Your task to perform on an android device: Open CNN.com Image 0: 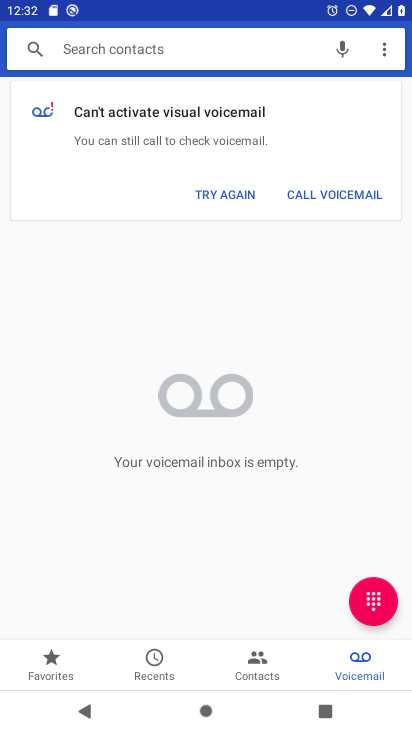
Step 0: press home button
Your task to perform on an android device: Open CNN.com Image 1: 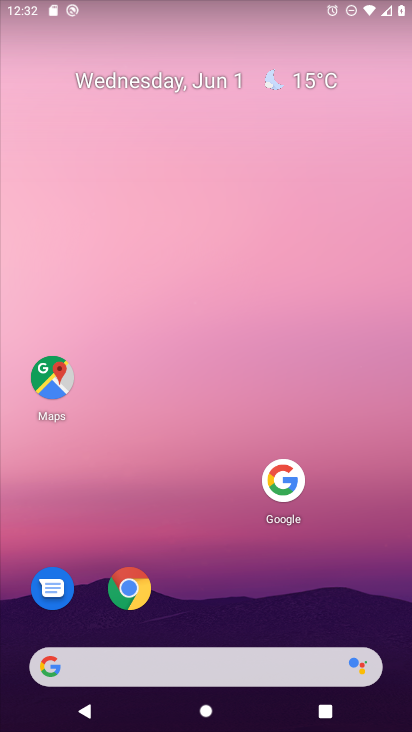
Step 1: click (133, 583)
Your task to perform on an android device: Open CNN.com Image 2: 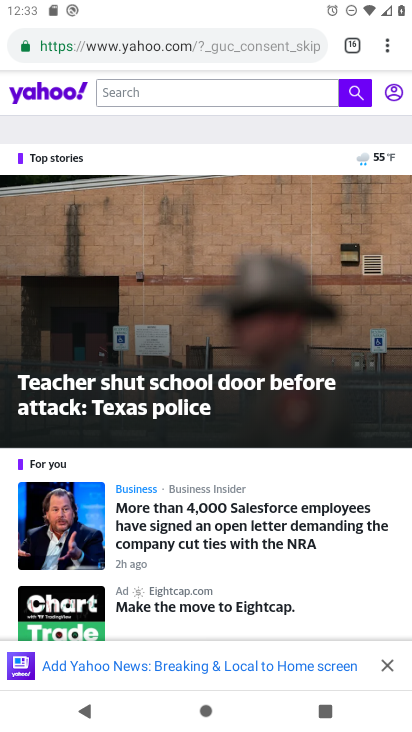
Step 2: drag from (390, 51) to (284, 89)
Your task to perform on an android device: Open CNN.com Image 3: 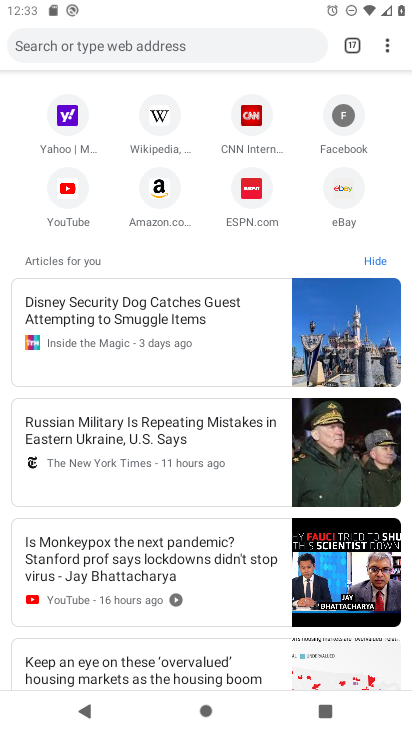
Step 3: click (250, 116)
Your task to perform on an android device: Open CNN.com Image 4: 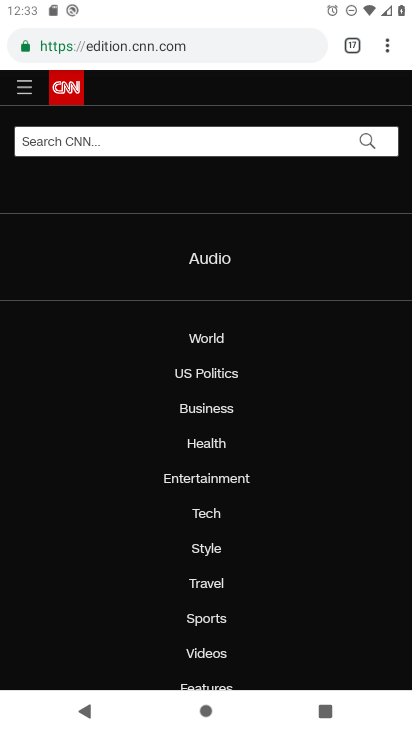
Step 4: task complete